Your task to perform on an android device: Open accessibility settings Image 0: 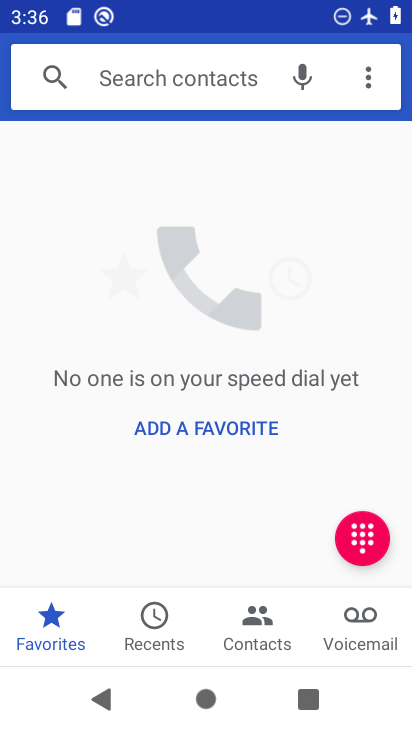
Step 0: press home button
Your task to perform on an android device: Open accessibility settings Image 1: 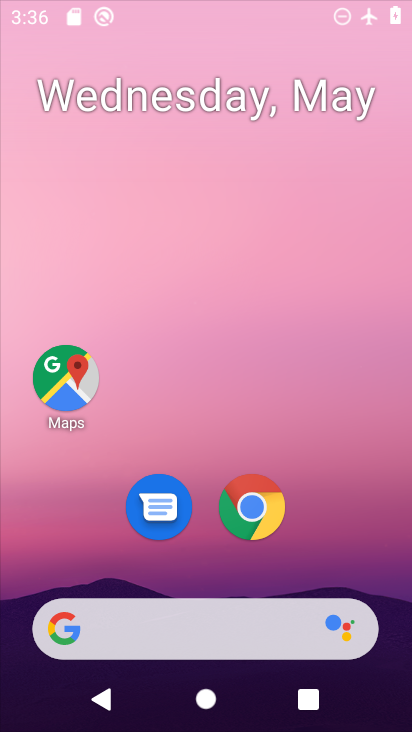
Step 1: drag from (250, 654) to (244, 103)
Your task to perform on an android device: Open accessibility settings Image 2: 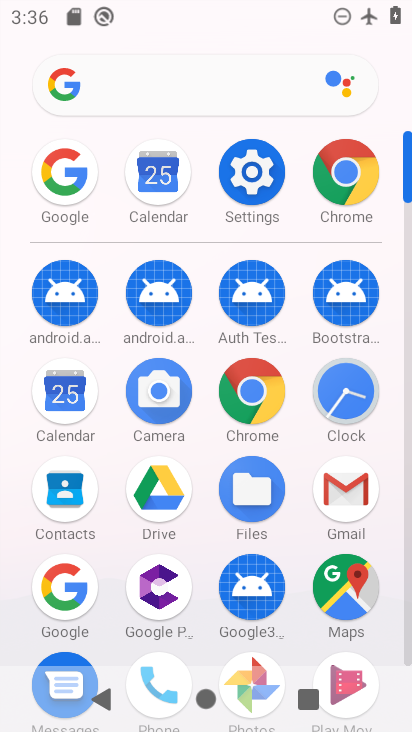
Step 2: click (257, 194)
Your task to perform on an android device: Open accessibility settings Image 3: 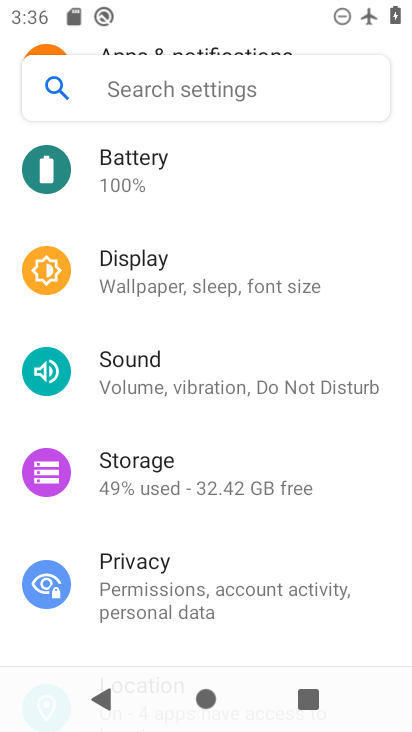
Step 3: drag from (204, 515) to (254, 13)
Your task to perform on an android device: Open accessibility settings Image 4: 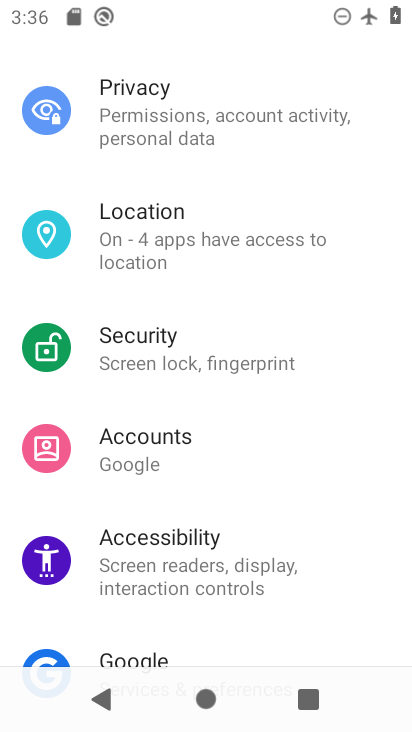
Step 4: drag from (194, 541) to (249, 48)
Your task to perform on an android device: Open accessibility settings Image 5: 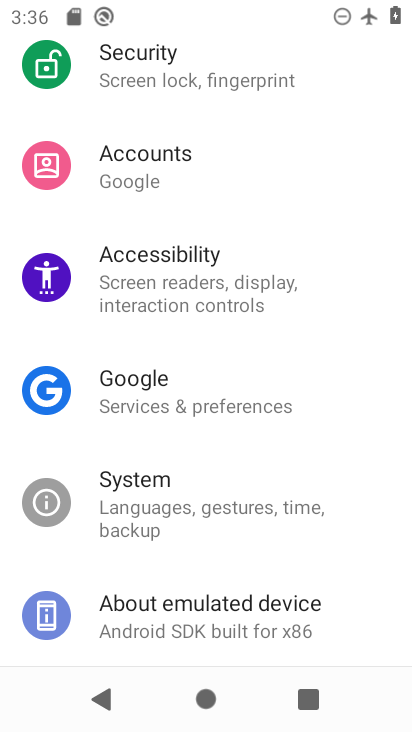
Step 5: drag from (206, 522) to (248, 126)
Your task to perform on an android device: Open accessibility settings Image 6: 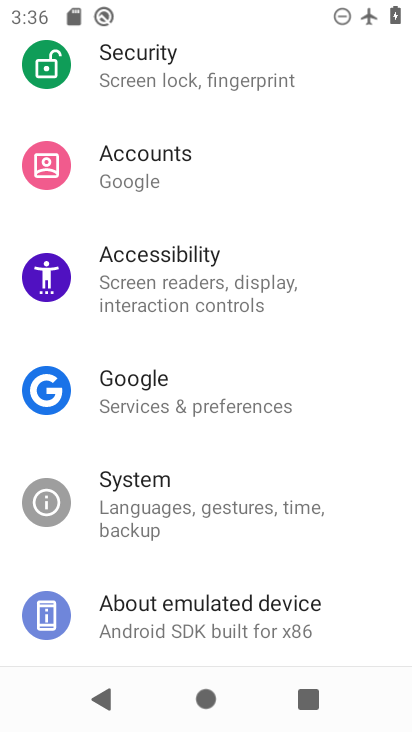
Step 6: click (191, 288)
Your task to perform on an android device: Open accessibility settings Image 7: 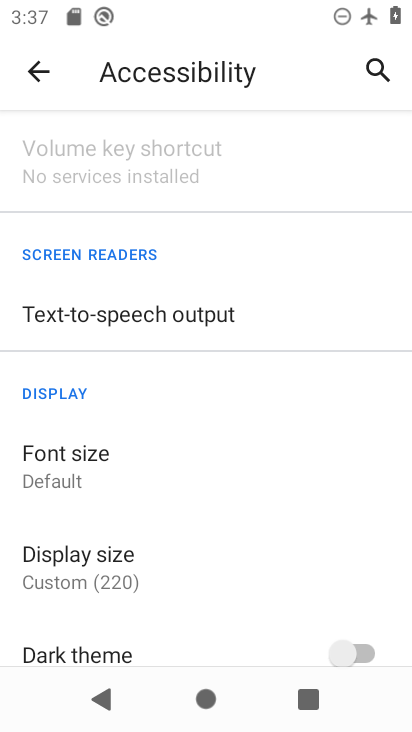
Step 7: task complete